Your task to perform on an android device: refresh tabs in the chrome app Image 0: 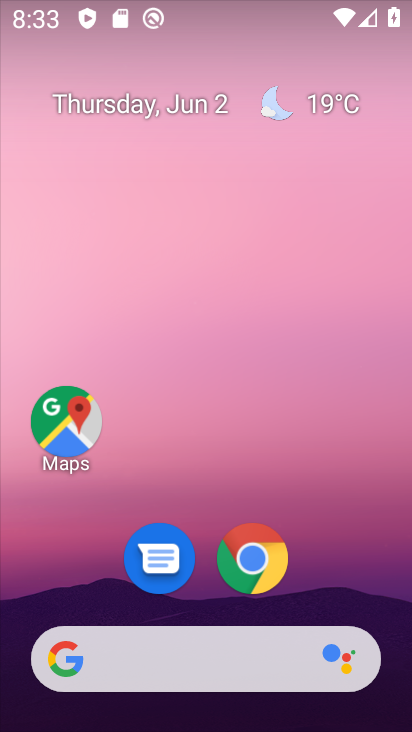
Step 0: click (262, 562)
Your task to perform on an android device: refresh tabs in the chrome app Image 1: 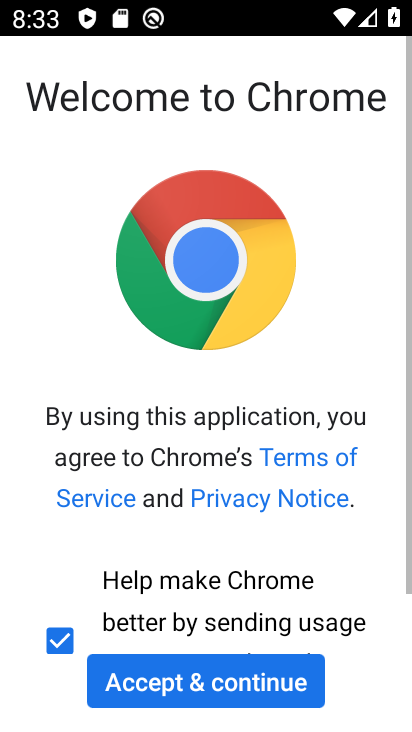
Step 1: click (235, 668)
Your task to perform on an android device: refresh tabs in the chrome app Image 2: 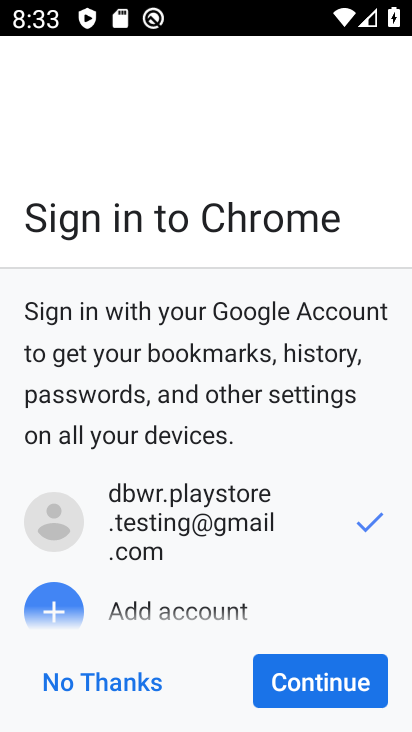
Step 2: click (333, 693)
Your task to perform on an android device: refresh tabs in the chrome app Image 3: 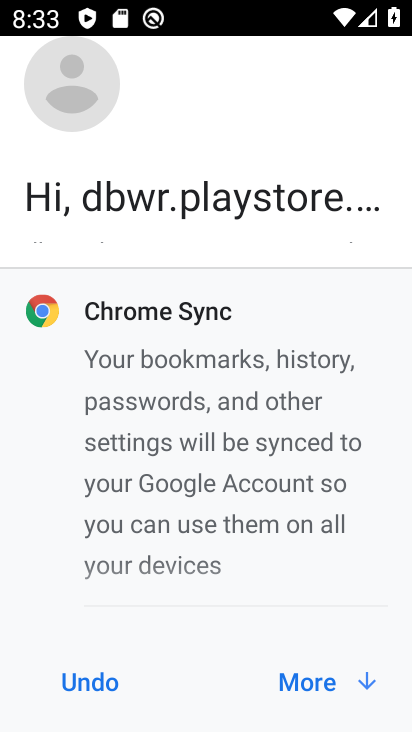
Step 3: click (334, 690)
Your task to perform on an android device: refresh tabs in the chrome app Image 4: 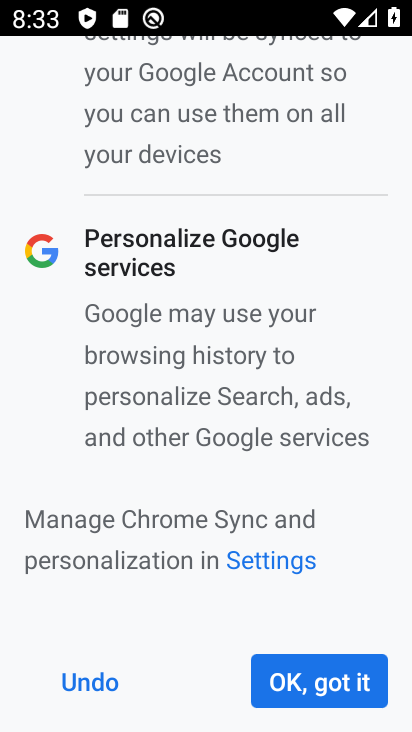
Step 4: click (334, 690)
Your task to perform on an android device: refresh tabs in the chrome app Image 5: 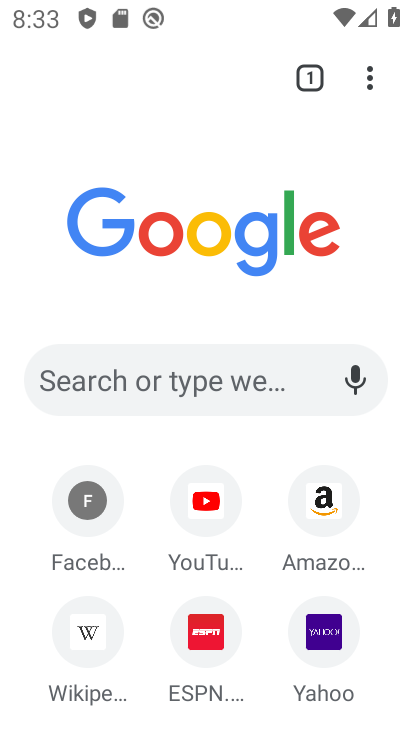
Step 5: click (374, 68)
Your task to perform on an android device: refresh tabs in the chrome app Image 6: 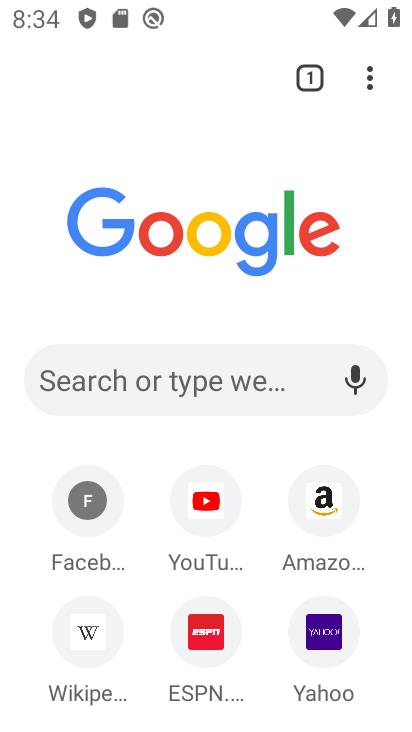
Step 6: task complete